Your task to perform on an android device: find photos in the google photos app Image 0: 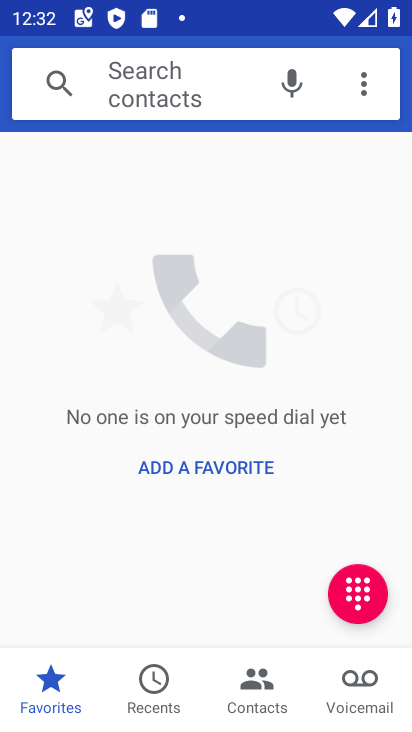
Step 0: press home button
Your task to perform on an android device: find photos in the google photos app Image 1: 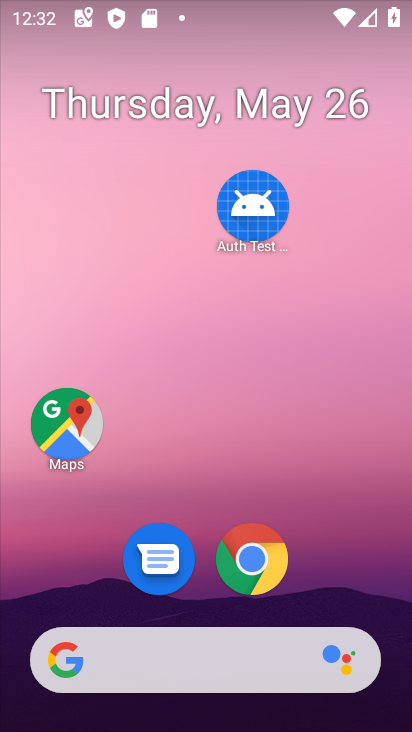
Step 1: drag from (373, 521) to (405, 7)
Your task to perform on an android device: find photos in the google photos app Image 2: 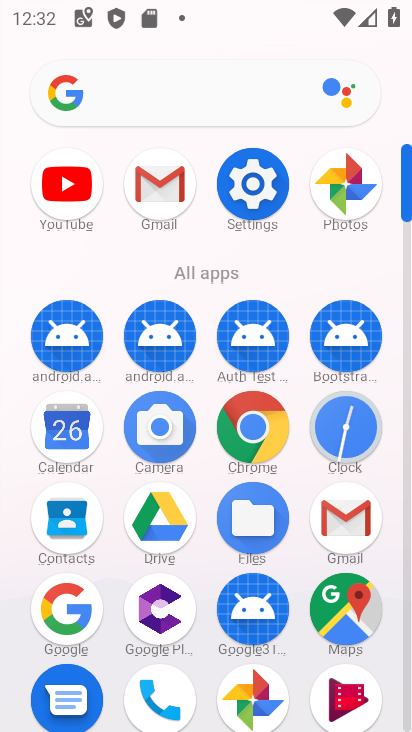
Step 2: click (350, 246)
Your task to perform on an android device: find photos in the google photos app Image 3: 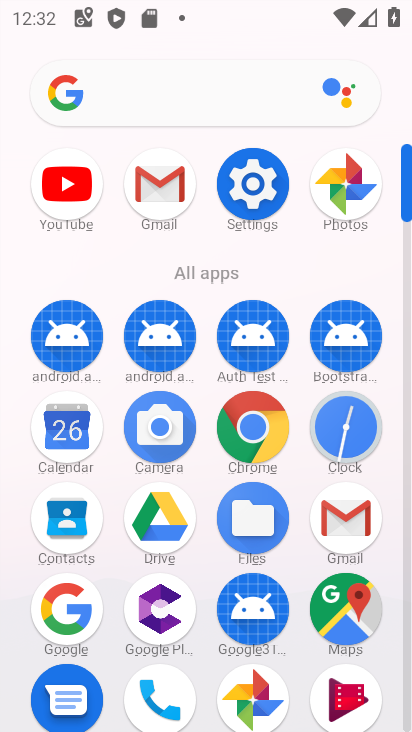
Step 3: click (347, 214)
Your task to perform on an android device: find photos in the google photos app Image 4: 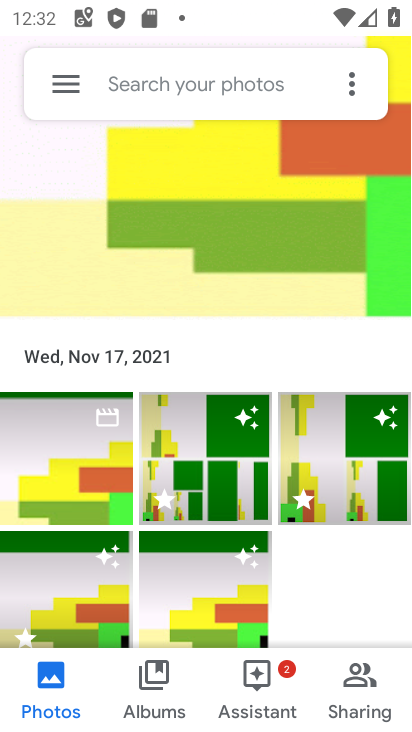
Step 4: click (333, 147)
Your task to perform on an android device: find photos in the google photos app Image 5: 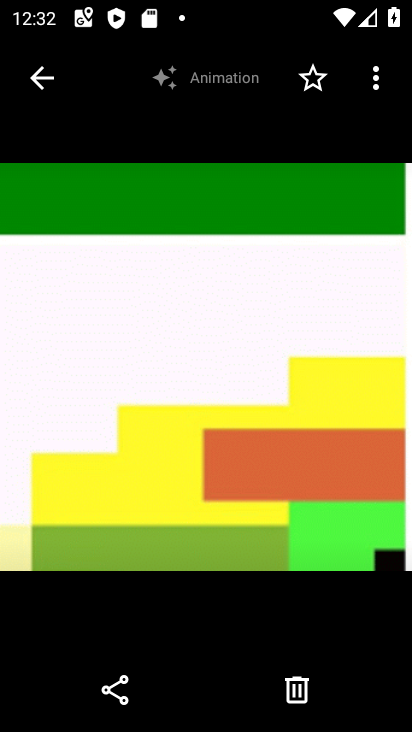
Step 5: click (49, 77)
Your task to perform on an android device: find photos in the google photos app Image 6: 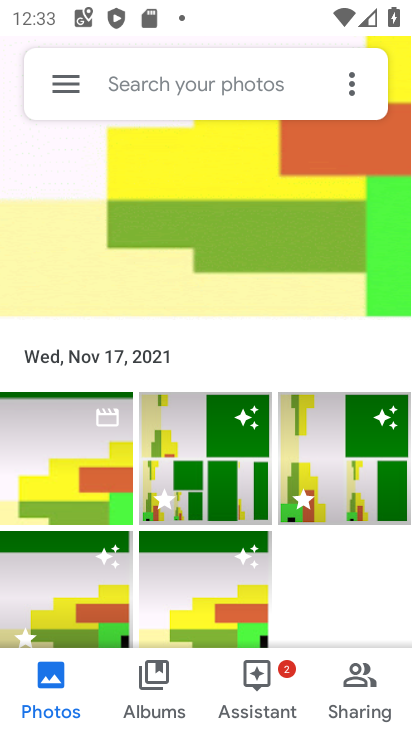
Step 6: task complete